Your task to perform on an android device: turn on airplane mode Image 0: 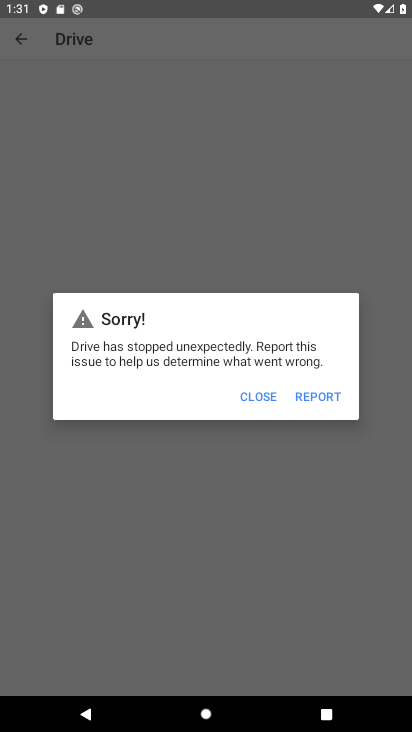
Step 0: press home button
Your task to perform on an android device: turn on airplane mode Image 1: 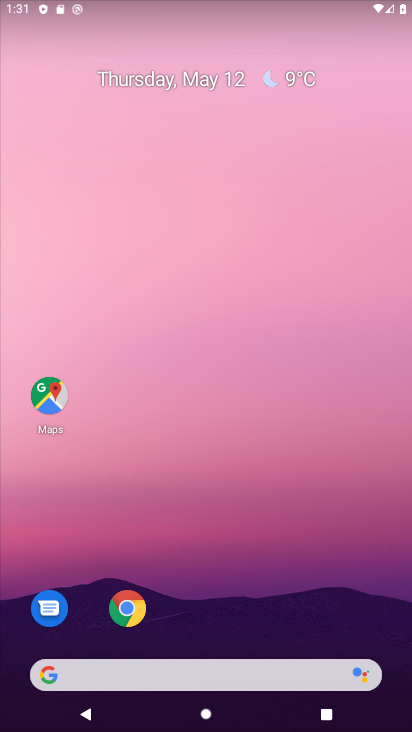
Step 1: drag from (181, 636) to (180, 329)
Your task to perform on an android device: turn on airplane mode Image 2: 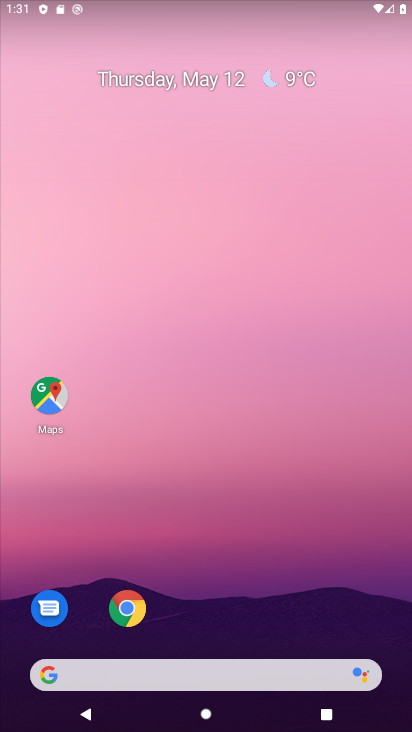
Step 2: drag from (188, 630) to (238, 81)
Your task to perform on an android device: turn on airplane mode Image 3: 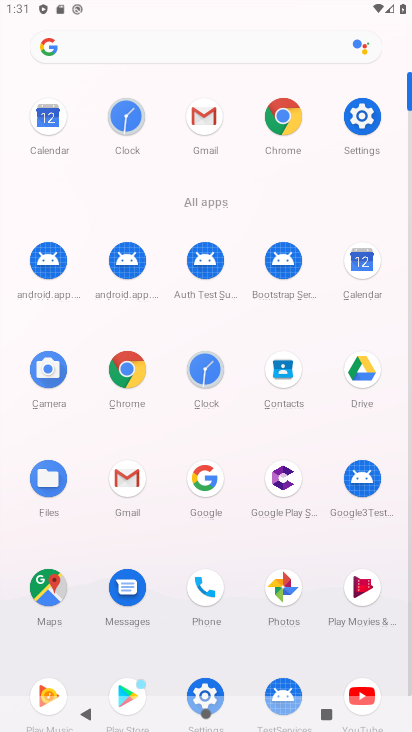
Step 3: click (362, 110)
Your task to perform on an android device: turn on airplane mode Image 4: 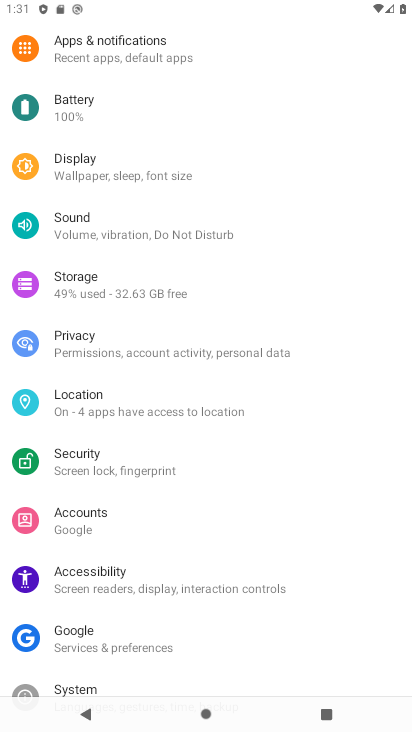
Step 4: drag from (244, 106) to (284, 294)
Your task to perform on an android device: turn on airplane mode Image 5: 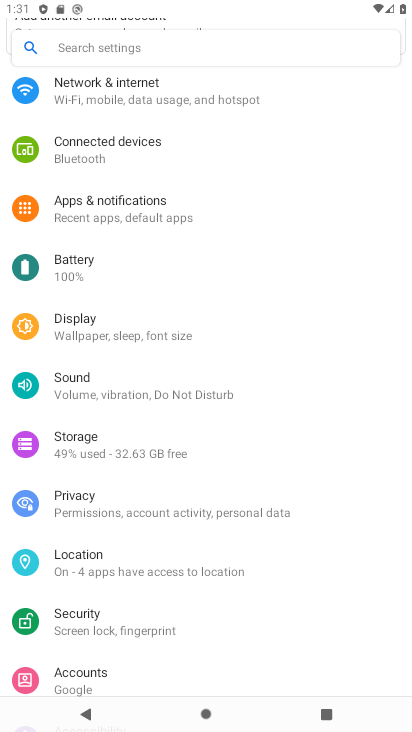
Step 5: click (226, 94)
Your task to perform on an android device: turn on airplane mode Image 6: 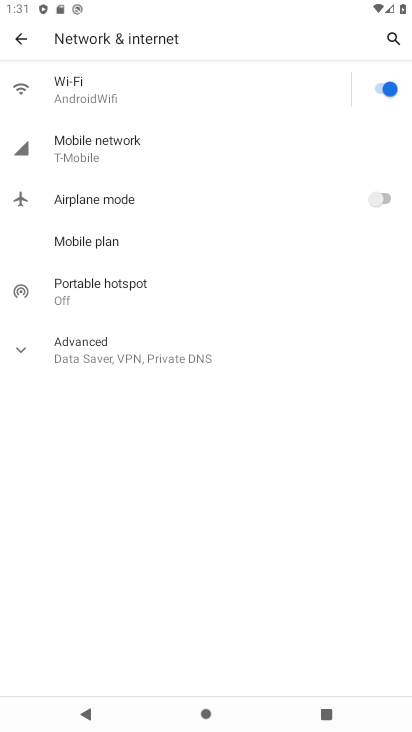
Step 6: click (374, 198)
Your task to perform on an android device: turn on airplane mode Image 7: 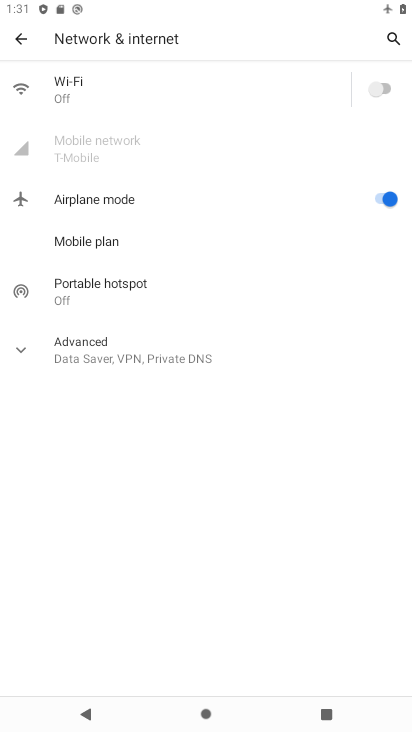
Step 7: task complete